Your task to perform on an android device: turn on sleep mode Image 0: 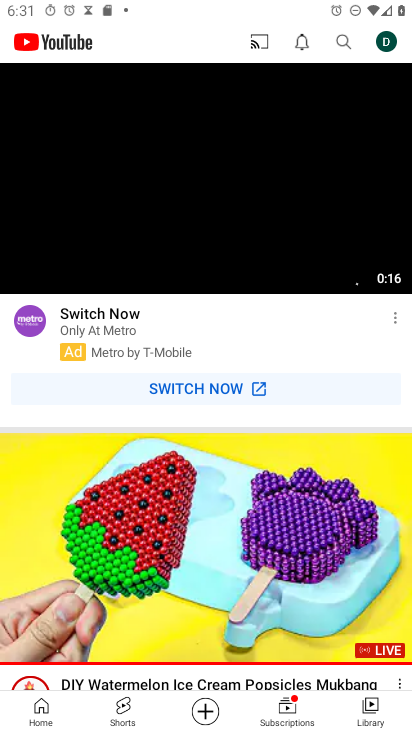
Step 0: press home button
Your task to perform on an android device: turn on sleep mode Image 1: 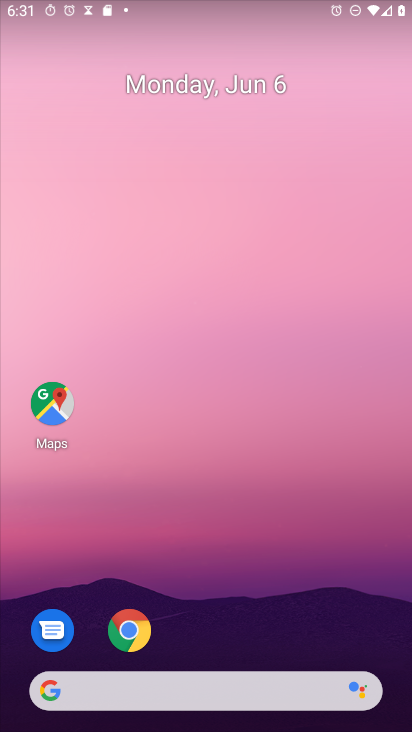
Step 1: drag from (285, 439) to (18, 267)
Your task to perform on an android device: turn on sleep mode Image 2: 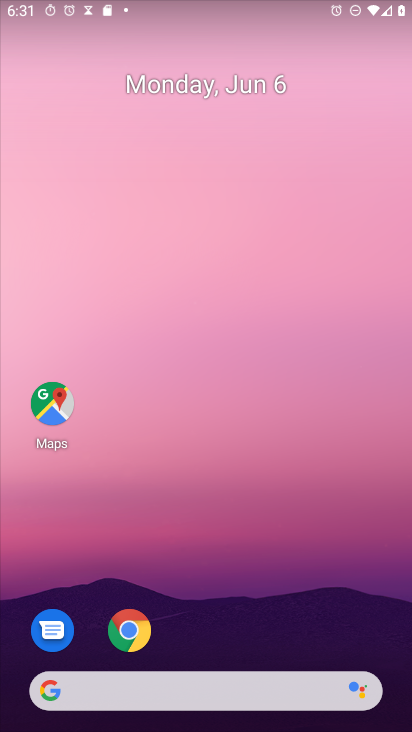
Step 2: drag from (298, 624) to (6, 20)
Your task to perform on an android device: turn on sleep mode Image 3: 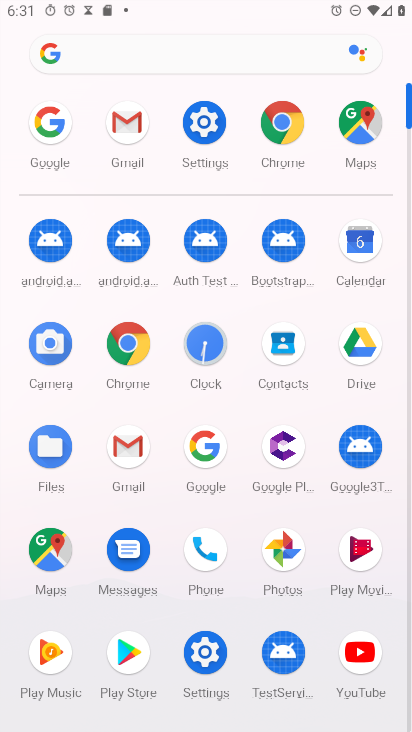
Step 3: click (215, 109)
Your task to perform on an android device: turn on sleep mode Image 4: 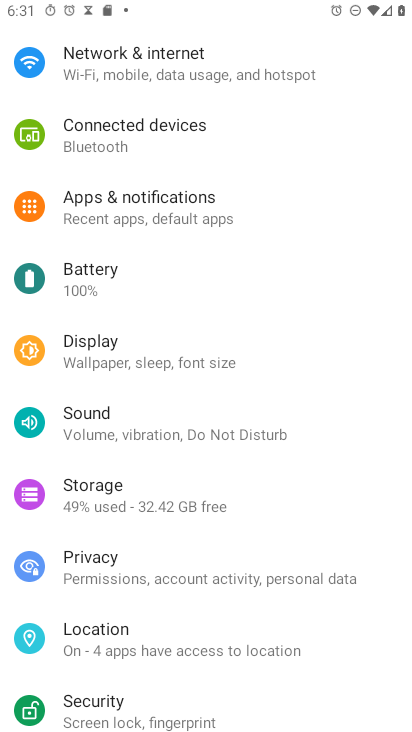
Step 4: click (190, 346)
Your task to perform on an android device: turn on sleep mode Image 5: 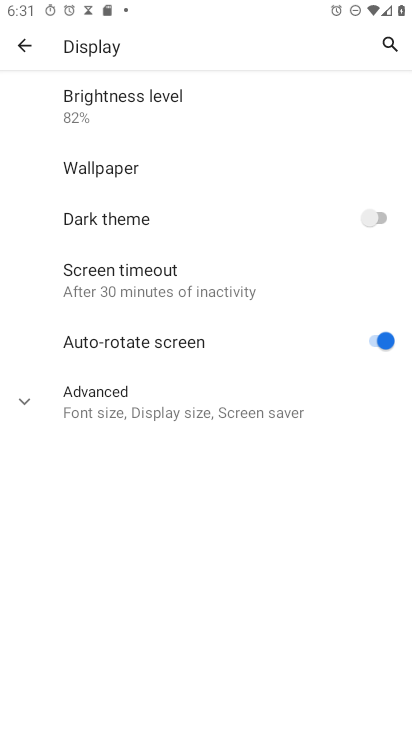
Step 5: task complete